Your task to perform on an android device: Open maps Image 0: 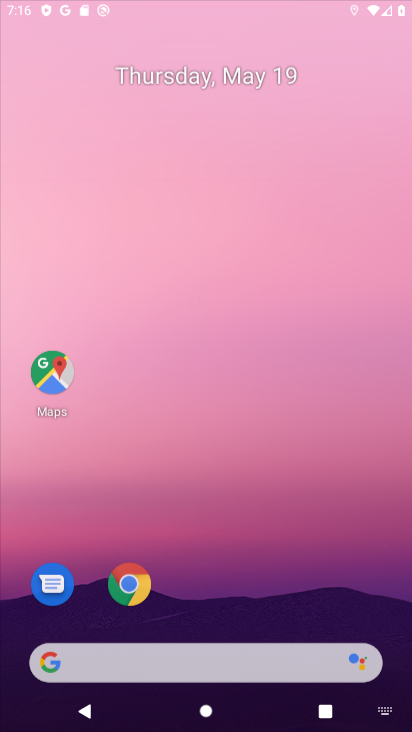
Step 0: click (128, 585)
Your task to perform on an android device: Open maps Image 1: 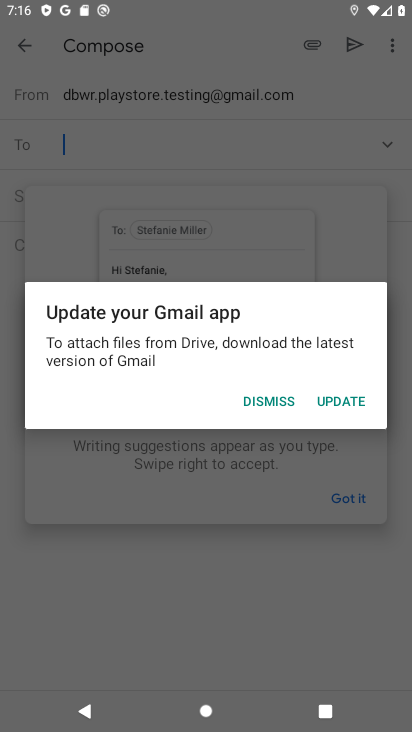
Step 1: click (256, 396)
Your task to perform on an android device: Open maps Image 2: 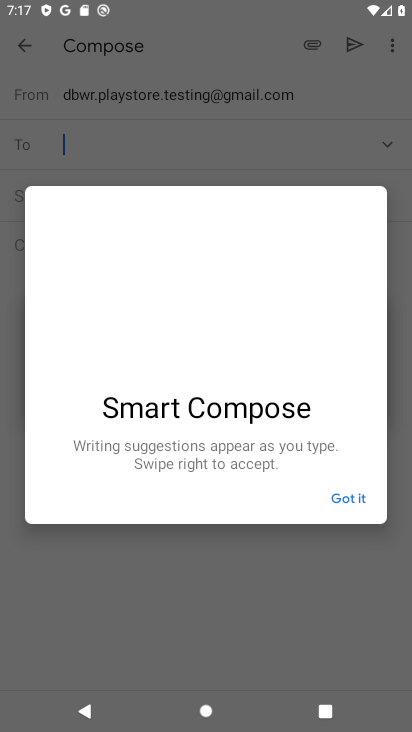
Step 2: click (355, 501)
Your task to perform on an android device: Open maps Image 3: 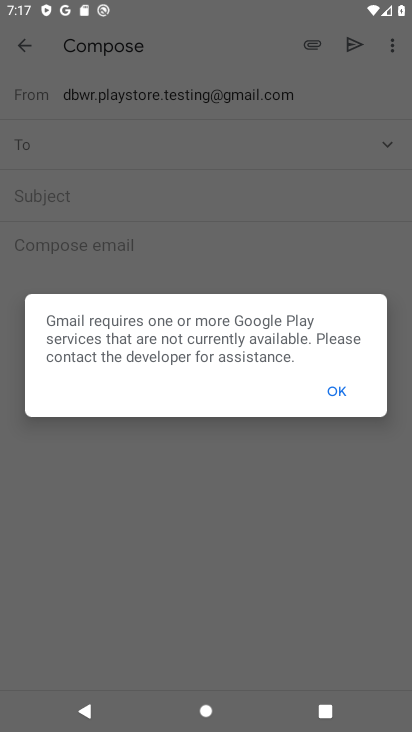
Step 3: click (342, 391)
Your task to perform on an android device: Open maps Image 4: 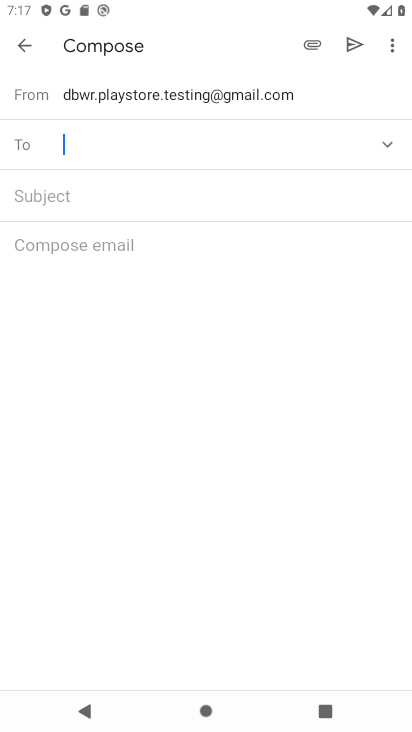
Step 4: click (3, 33)
Your task to perform on an android device: Open maps Image 5: 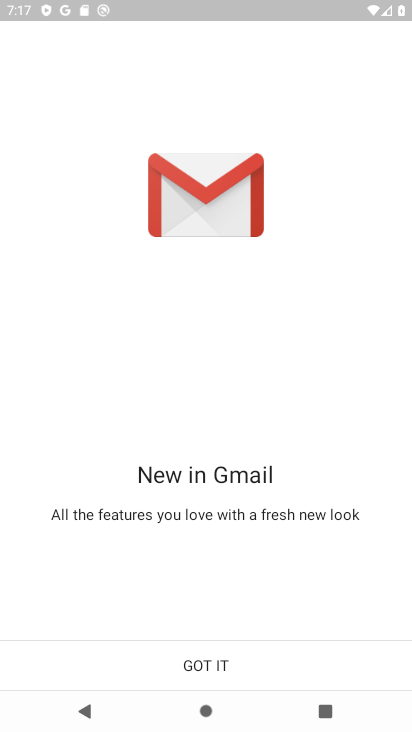
Step 5: click (230, 652)
Your task to perform on an android device: Open maps Image 6: 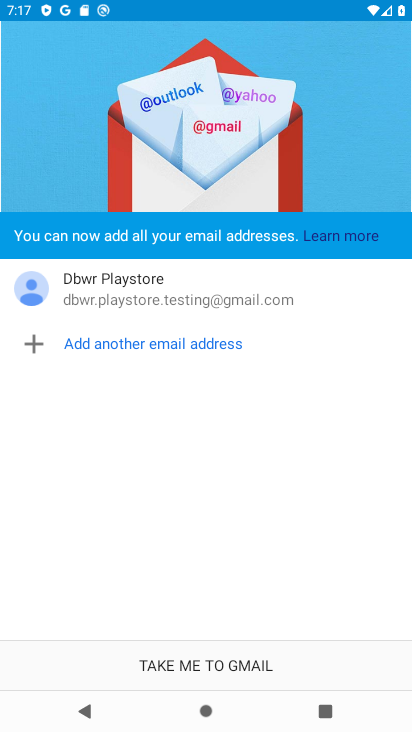
Step 6: press home button
Your task to perform on an android device: Open maps Image 7: 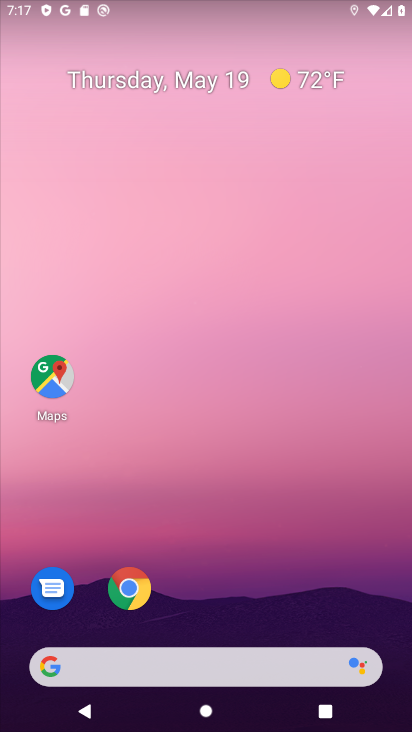
Step 7: click (40, 415)
Your task to perform on an android device: Open maps Image 8: 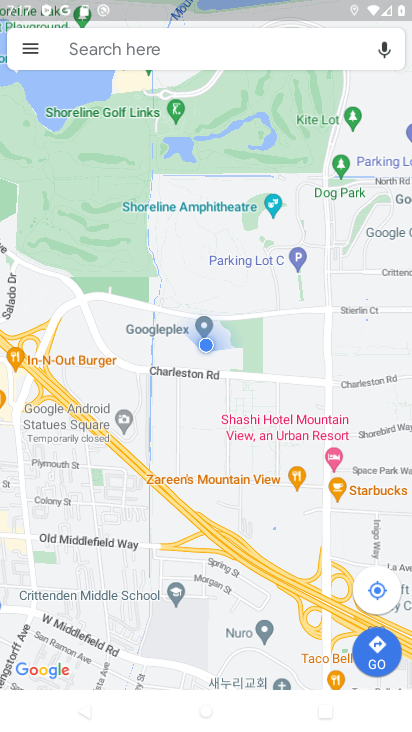
Step 8: task complete